Your task to perform on an android device: toggle wifi Image 0: 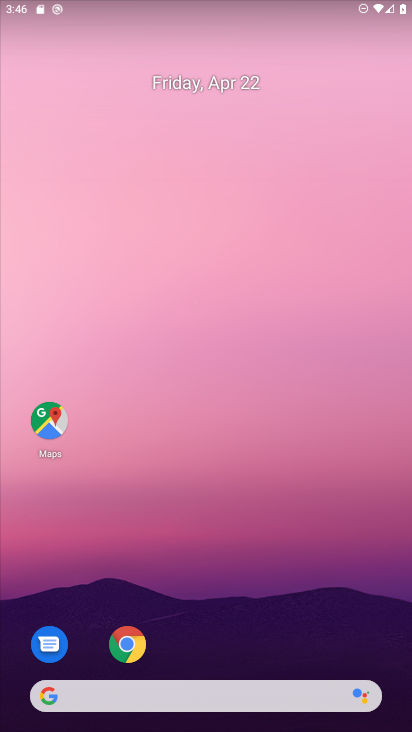
Step 0: drag from (241, 569) to (269, 75)
Your task to perform on an android device: toggle wifi Image 1: 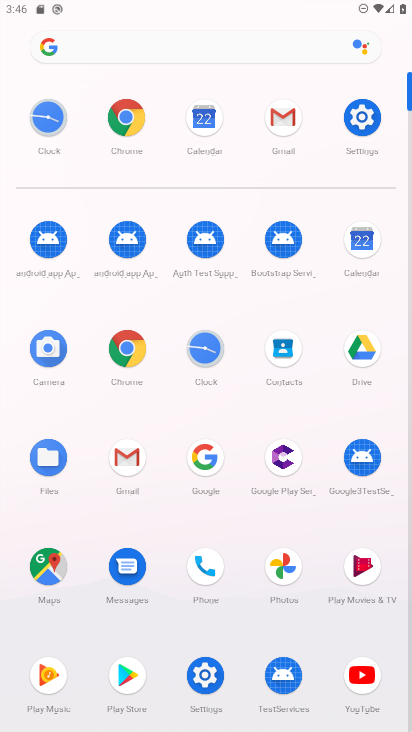
Step 1: click (376, 118)
Your task to perform on an android device: toggle wifi Image 2: 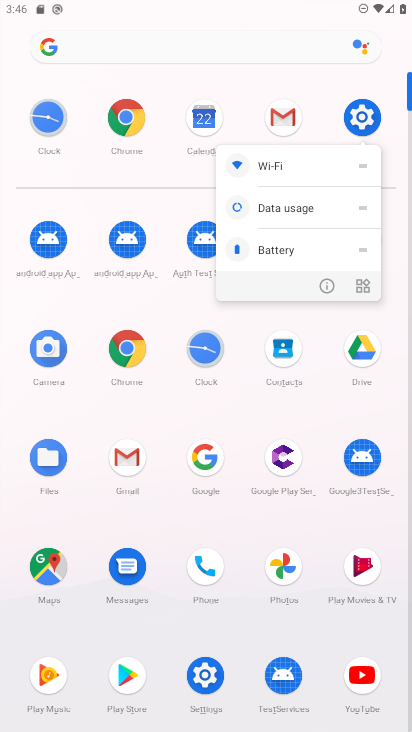
Step 2: click (367, 119)
Your task to perform on an android device: toggle wifi Image 3: 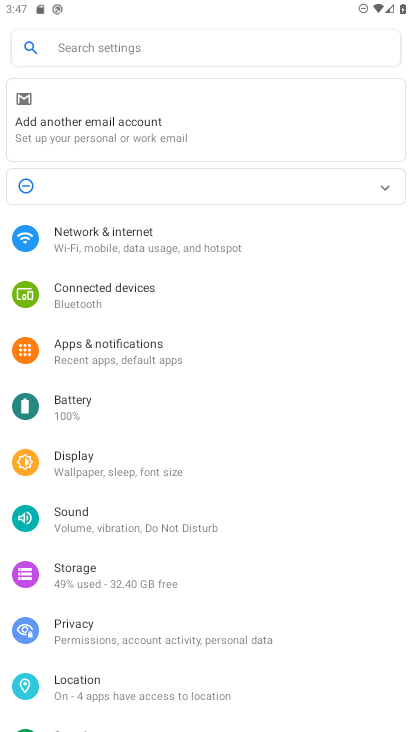
Step 3: click (118, 243)
Your task to perform on an android device: toggle wifi Image 4: 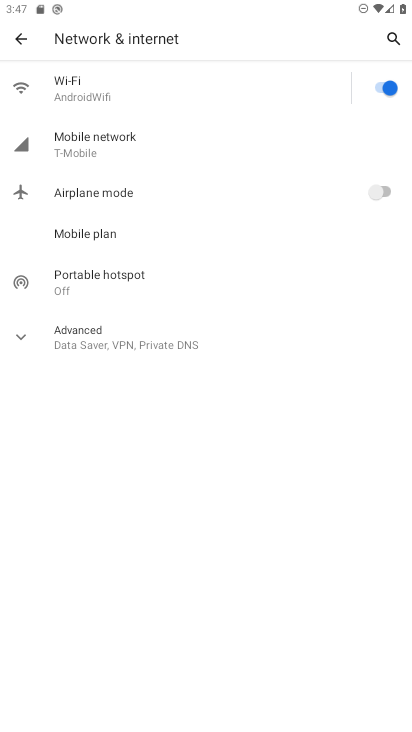
Step 4: click (162, 89)
Your task to perform on an android device: toggle wifi Image 5: 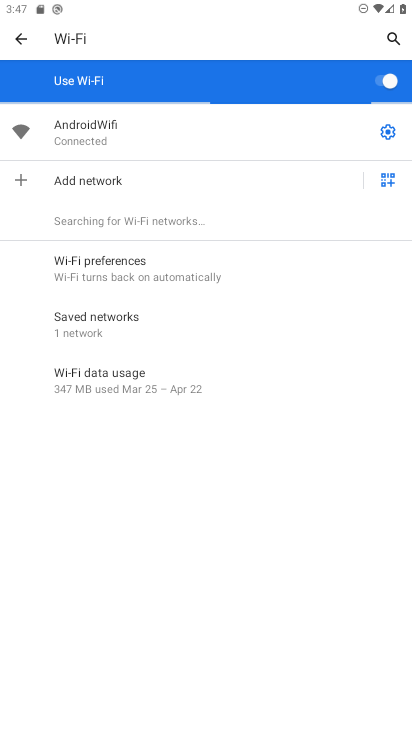
Step 5: task complete